Your task to perform on an android device: turn pop-ups off in chrome Image 0: 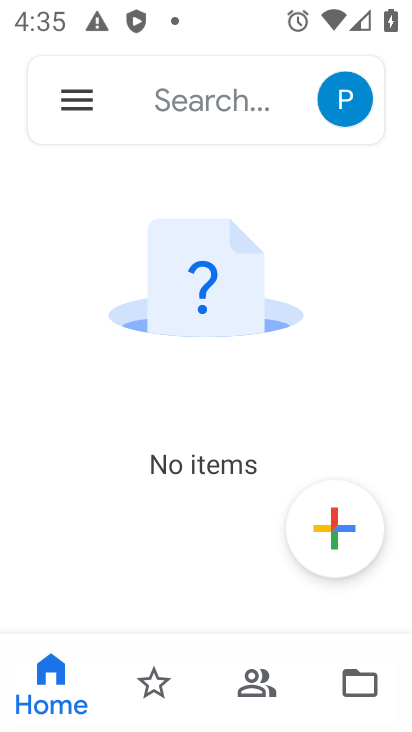
Step 0: press home button
Your task to perform on an android device: turn pop-ups off in chrome Image 1: 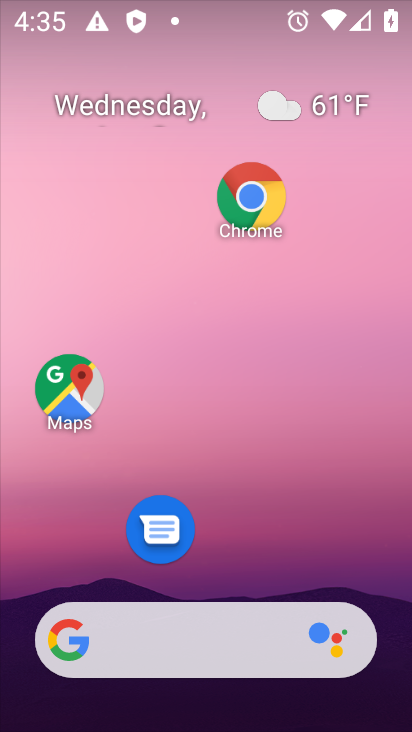
Step 1: click (254, 196)
Your task to perform on an android device: turn pop-ups off in chrome Image 2: 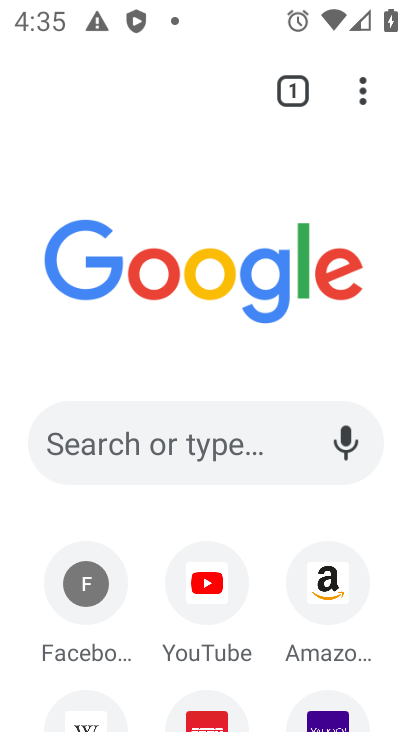
Step 2: click (368, 84)
Your task to perform on an android device: turn pop-ups off in chrome Image 3: 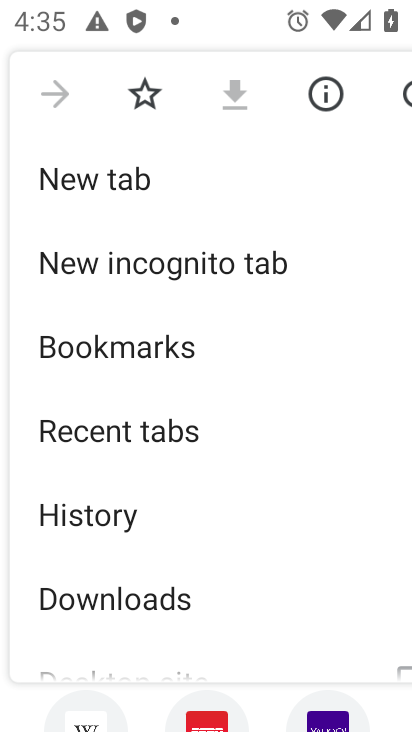
Step 3: drag from (154, 570) to (175, 58)
Your task to perform on an android device: turn pop-ups off in chrome Image 4: 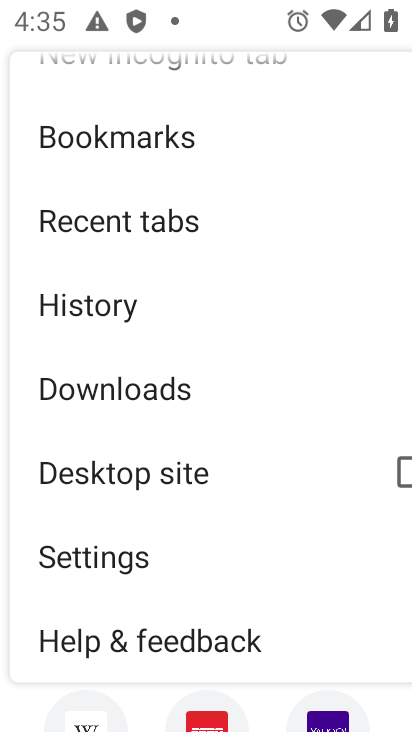
Step 4: click (117, 579)
Your task to perform on an android device: turn pop-ups off in chrome Image 5: 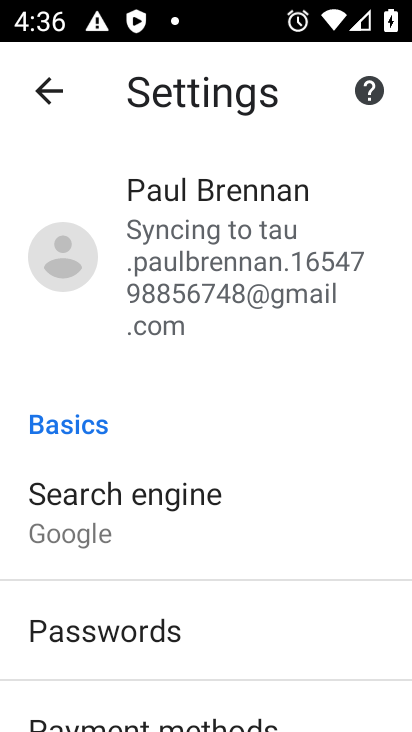
Step 5: drag from (90, 603) to (247, 13)
Your task to perform on an android device: turn pop-ups off in chrome Image 6: 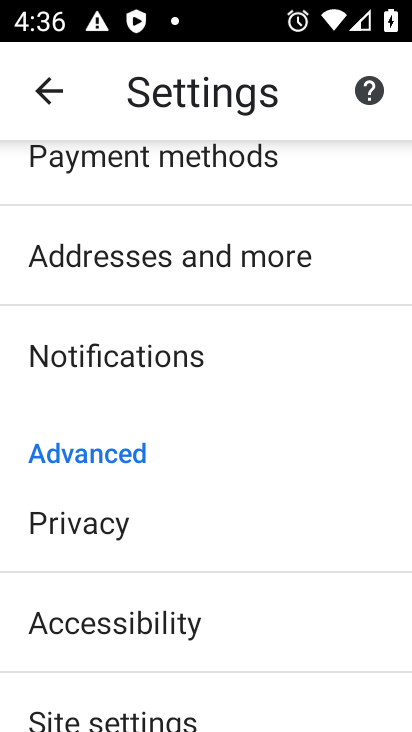
Step 6: drag from (118, 673) to (150, 111)
Your task to perform on an android device: turn pop-ups off in chrome Image 7: 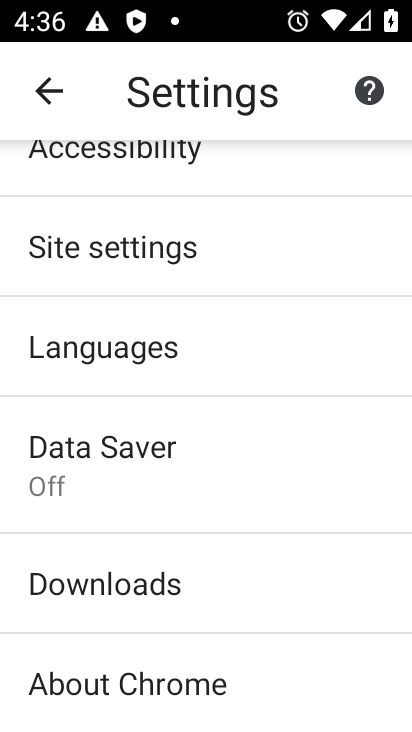
Step 7: drag from (145, 526) to (153, 274)
Your task to perform on an android device: turn pop-ups off in chrome Image 8: 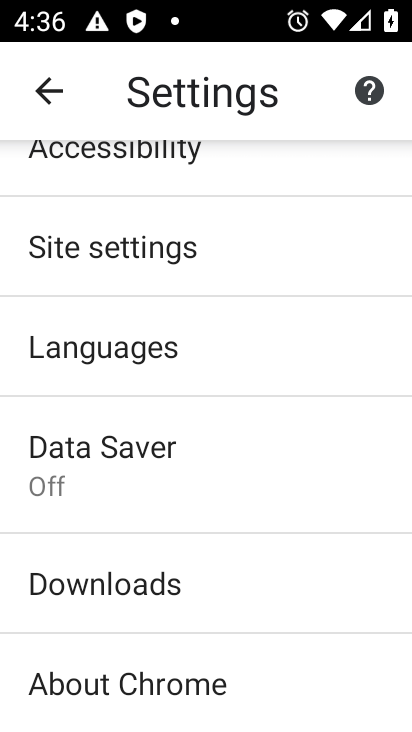
Step 8: drag from (141, 526) to (132, 245)
Your task to perform on an android device: turn pop-ups off in chrome Image 9: 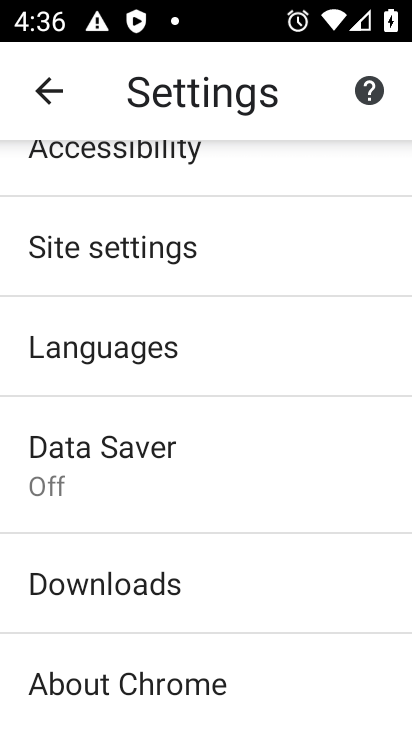
Step 9: click (124, 241)
Your task to perform on an android device: turn pop-ups off in chrome Image 10: 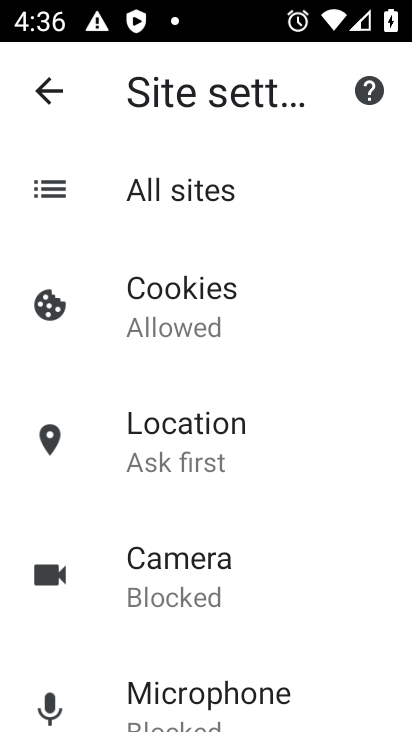
Step 10: drag from (206, 611) to (209, 292)
Your task to perform on an android device: turn pop-ups off in chrome Image 11: 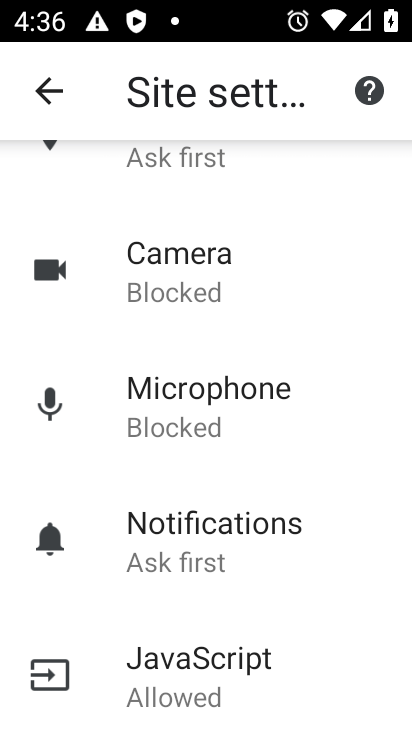
Step 11: drag from (198, 643) to (222, 236)
Your task to perform on an android device: turn pop-ups off in chrome Image 12: 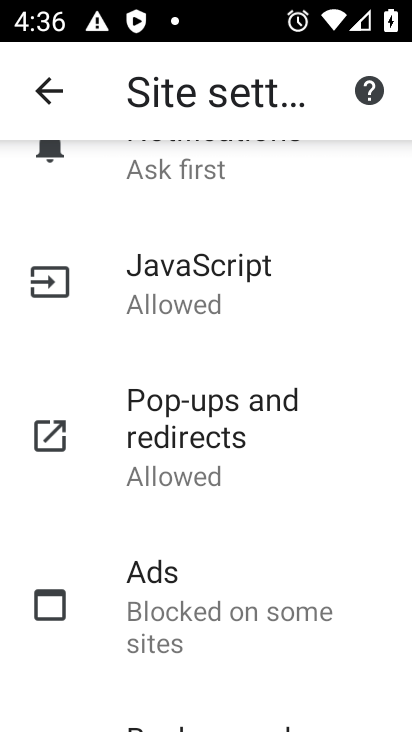
Step 12: click (202, 422)
Your task to perform on an android device: turn pop-ups off in chrome Image 13: 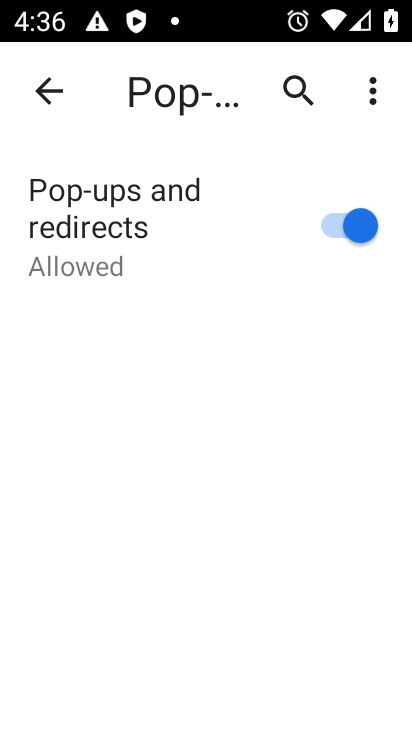
Step 13: click (312, 219)
Your task to perform on an android device: turn pop-ups off in chrome Image 14: 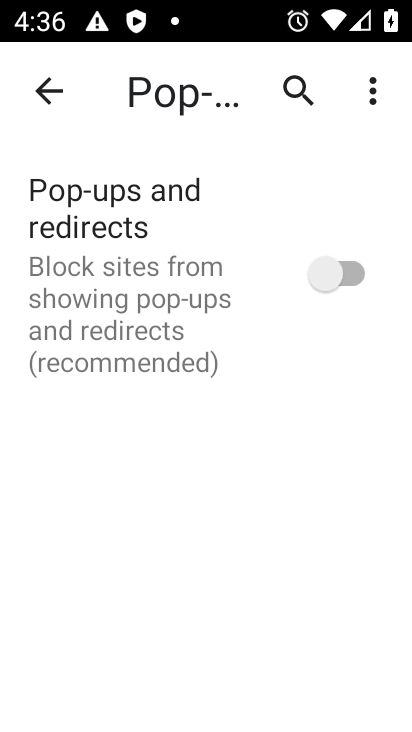
Step 14: task complete